Your task to perform on an android device: Open wifi settings Image 0: 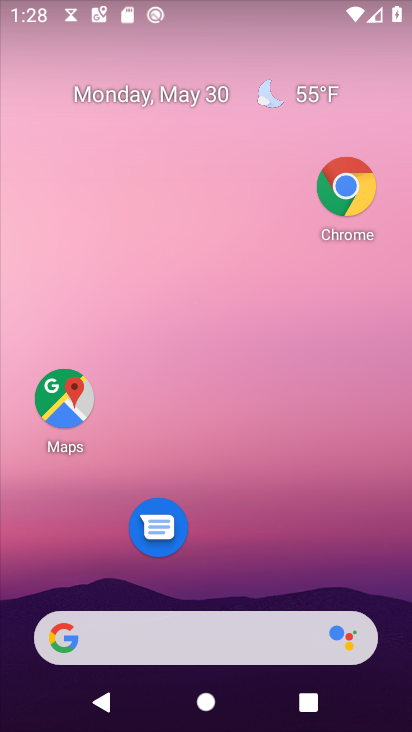
Step 0: drag from (216, 449) to (217, 124)
Your task to perform on an android device: Open wifi settings Image 1: 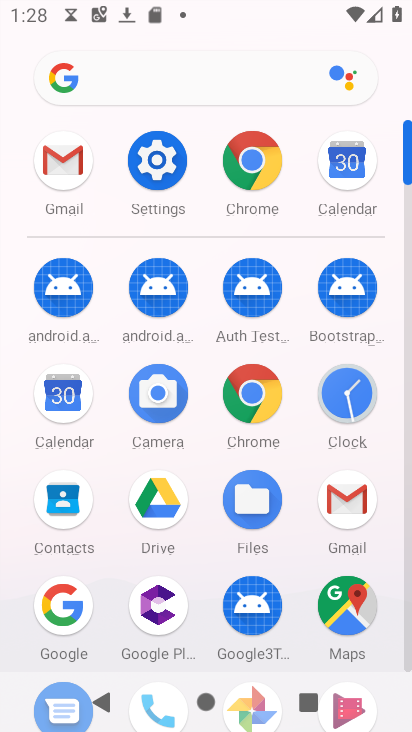
Step 1: click (152, 151)
Your task to perform on an android device: Open wifi settings Image 2: 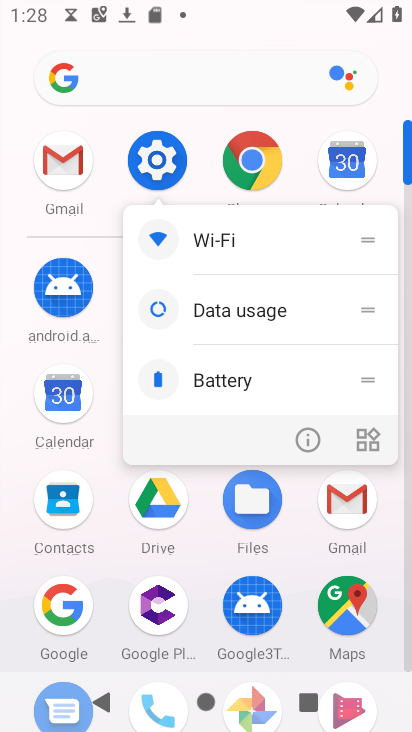
Step 2: click (306, 436)
Your task to perform on an android device: Open wifi settings Image 3: 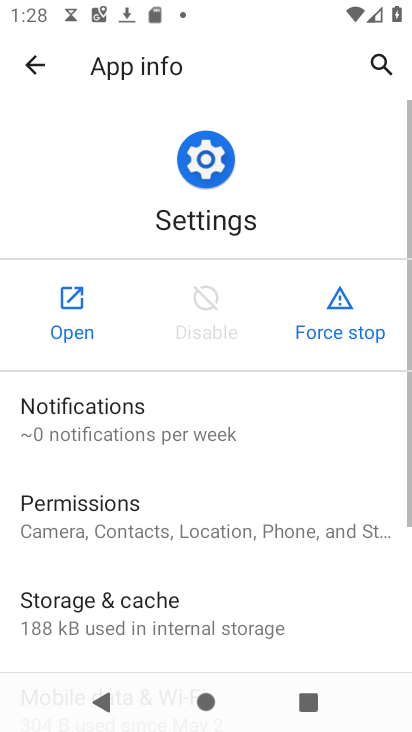
Step 3: click (56, 313)
Your task to perform on an android device: Open wifi settings Image 4: 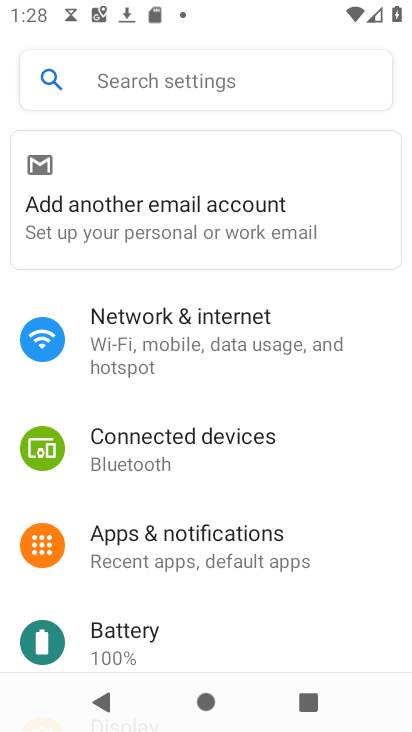
Step 4: drag from (182, 189) to (243, 4)
Your task to perform on an android device: Open wifi settings Image 5: 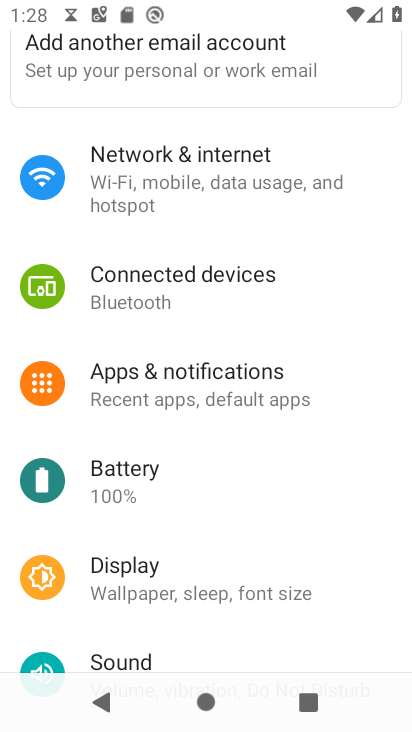
Step 5: click (169, 207)
Your task to perform on an android device: Open wifi settings Image 6: 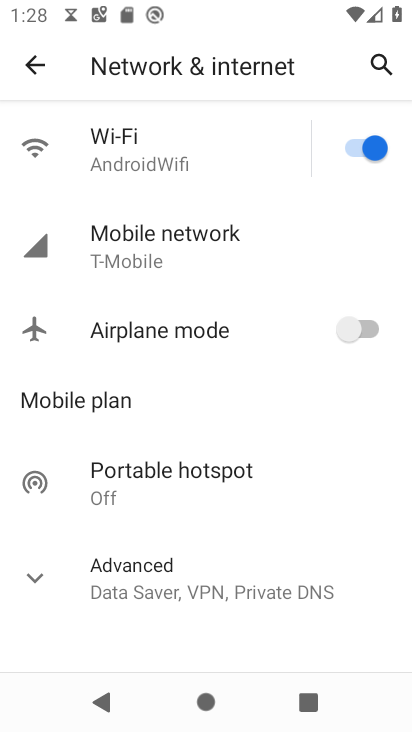
Step 6: click (205, 180)
Your task to perform on an android device: Open wifi settings Image 7: 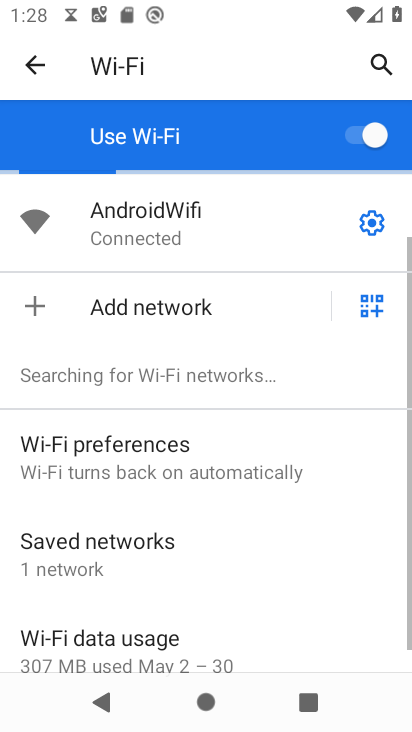
Step 7: click (370, 225)
Your task to perform on an android device: Open wifi settings Image 8: 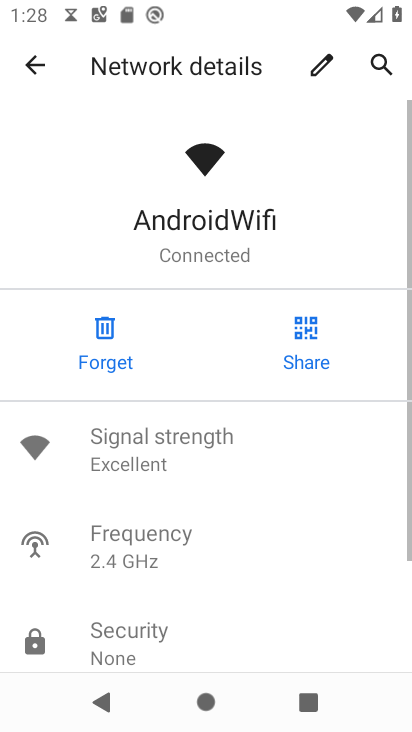
Step 8: task complete